Your task to perform on an android device: When is my next appointment? Image 0: 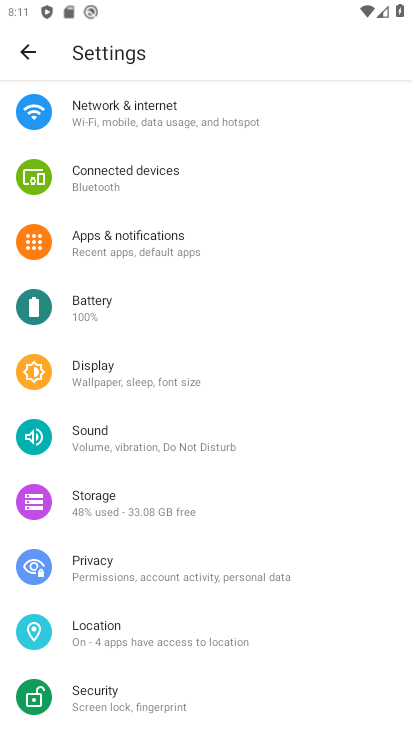
Step 0: press back button
Your task to perform on an android device: When is my next appointment? Image 1: 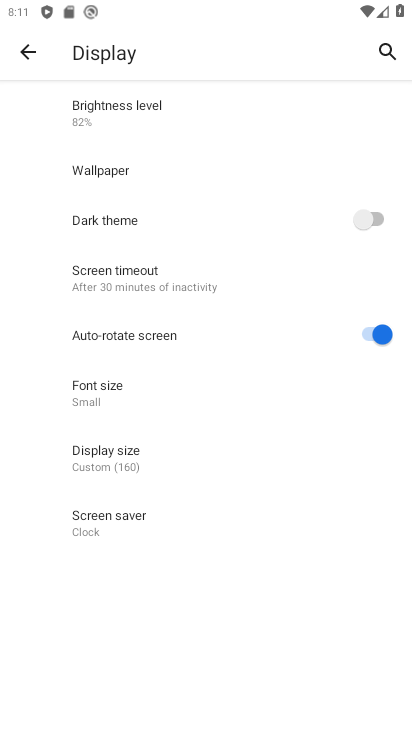
Step 1: press back button
Your task to perform on an android device: When is my next appointment? Image 2: 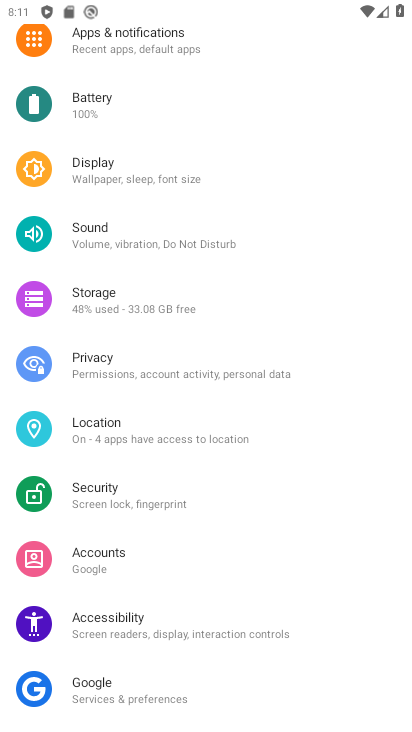
Step 2: press back button
Your task to perform on an android device: When is my next appointment? Image 3: 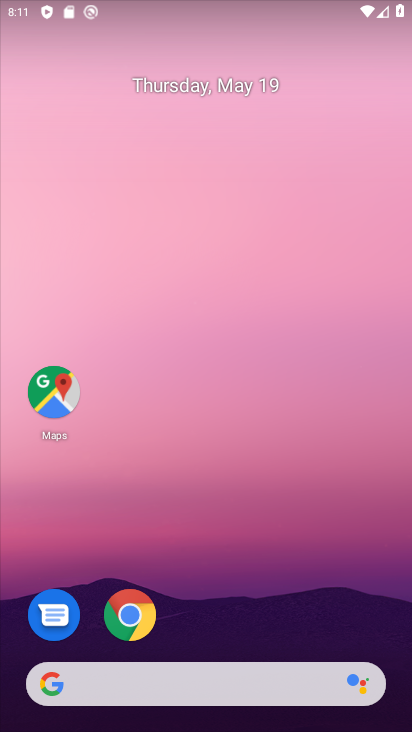
Step 3: drag from (250, 586) to (217, 136)
Your task to perform on an android device: When is my next appointment? Image 4: 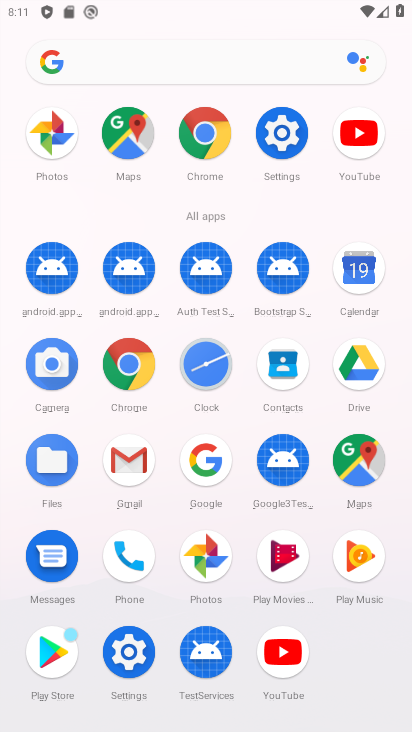
Step 4: click (362, 270)
Your task to perform on an android device: When is my next appointment? Image 5: 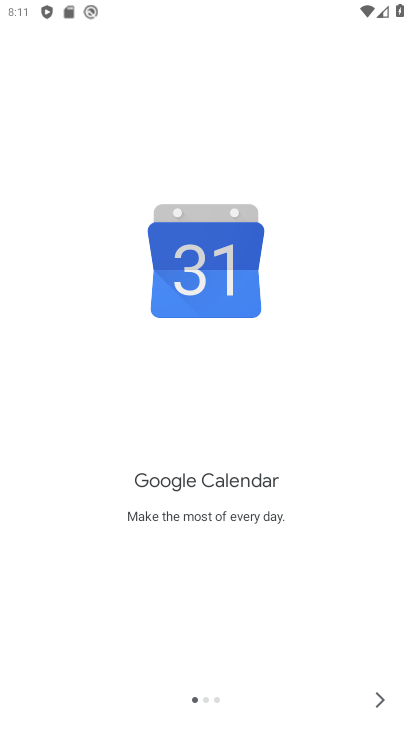
Step 5: click (382, 698)
Your task to perform on an android device: When is my next appointment? Image 6: 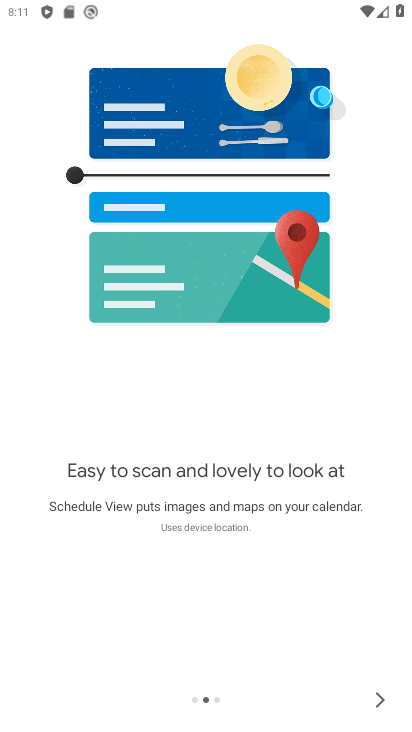
Step 6: click (382, 698)
Your task to perform on an android device: When is my next appointment? Image 7: 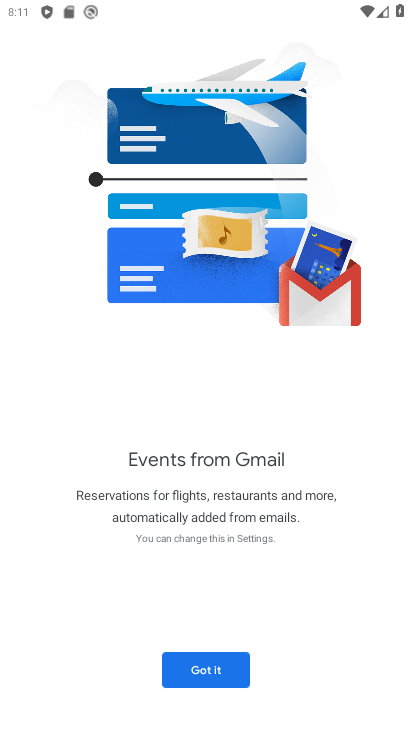
Step 7: click (221, 674)
Your task to perform on an android device: When is my next appointment? Image 8: 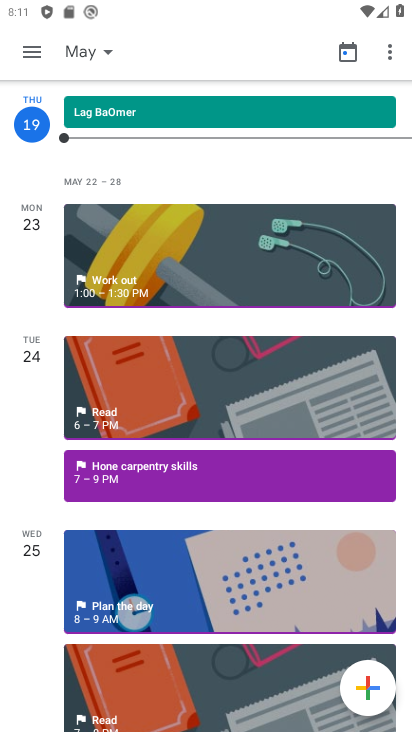
Step 8: click (107, 55)
Your task to perform on an android device: When is my next appointment? Image 9: 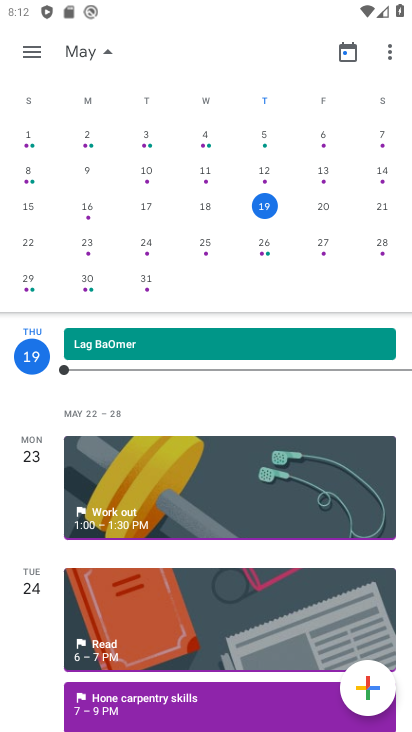
Step 9: click (95, 247)
Your task to perform on an android device: When is my next appointment? Image 10: 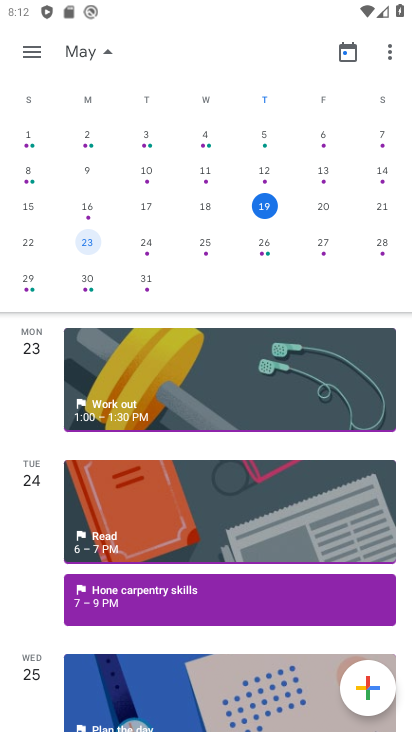
Step 10: click (25, 53)
Your task to perform on an android device: When is my next appointment? Image 11: 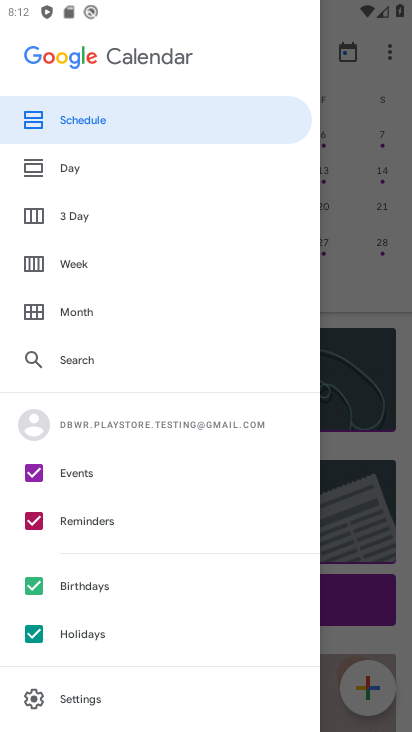
Step 11: click (91, 258)
Your task to perform on an android device: When is my next appointment? Image 12: 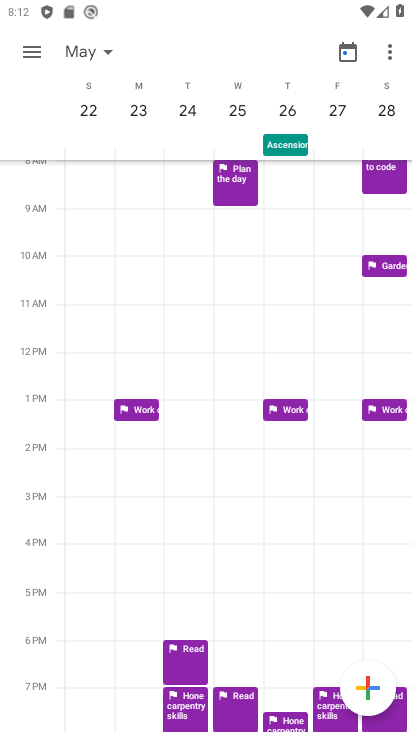
Step 12: task complete